Your task to perform on an android device: What's on my calendar tomorrow? Image 0: 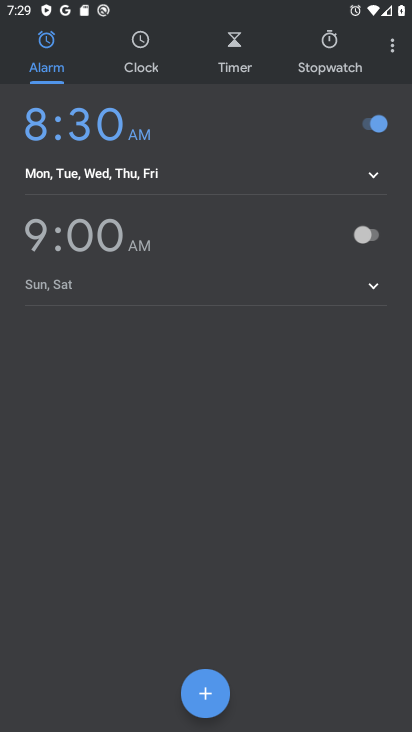
Step 0: press home button
Your task to perform on an android device: What's on my calendar tomorrow? Image 1: 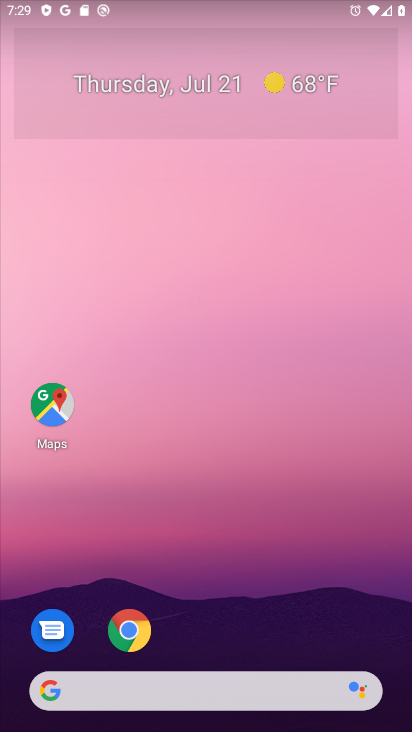
Step 1: drag from (220, 576) to (196, 17)
Your task to perform on an android device: What's on my calendar tomorrow? Image 2: 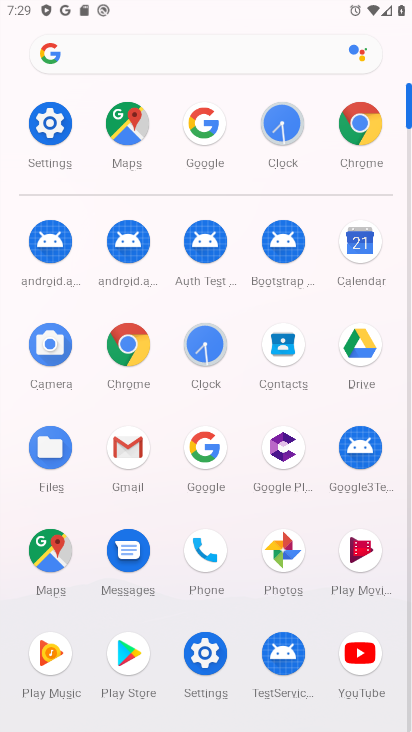
Step 2: click (362, 242)
Your task to perform on an android device: What's on my calendar tomorrow? Image 3: 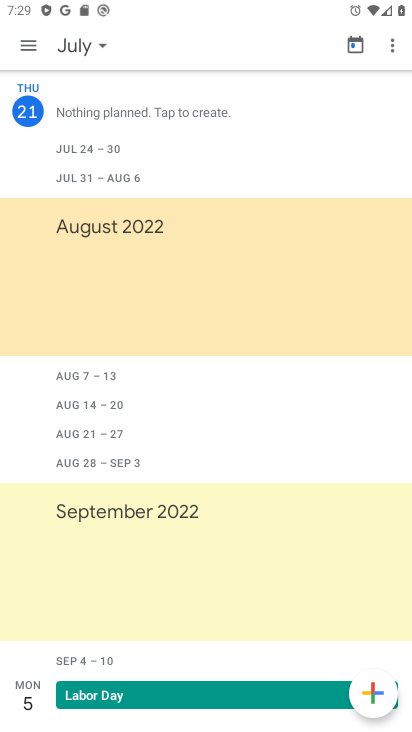
Step 3: click (68, 38)
Your task to perform on an android device: What's on my calendar tomorrow? Image 4: 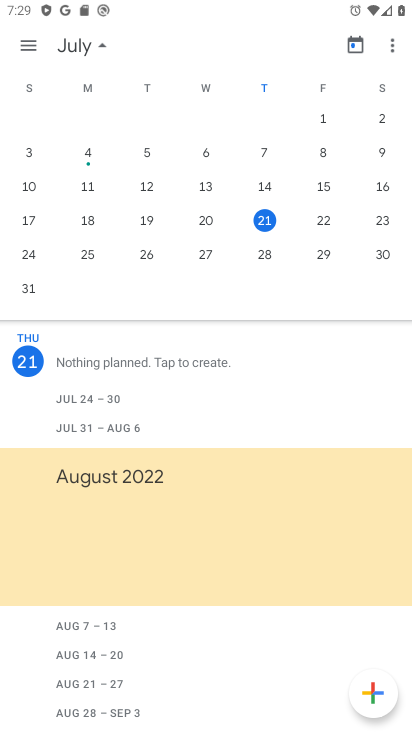
Step 4: click (317, 222)
Your task to perform on an android device: What's on my calendar tomorrow? Image 5: 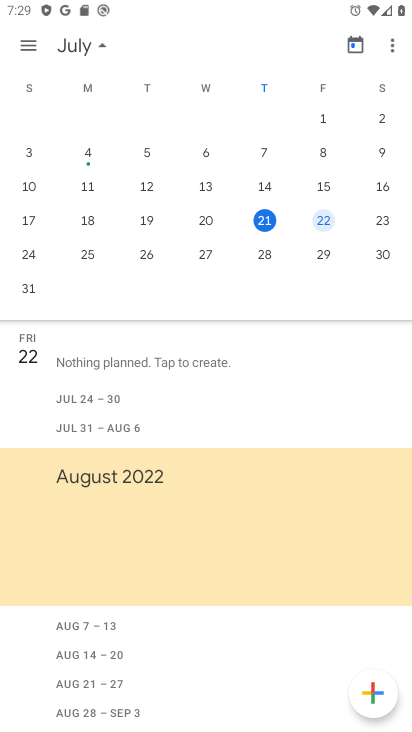
Step 5: task complete